Your task to perform on an android device: visit the assistant section in the google photos Image 0: 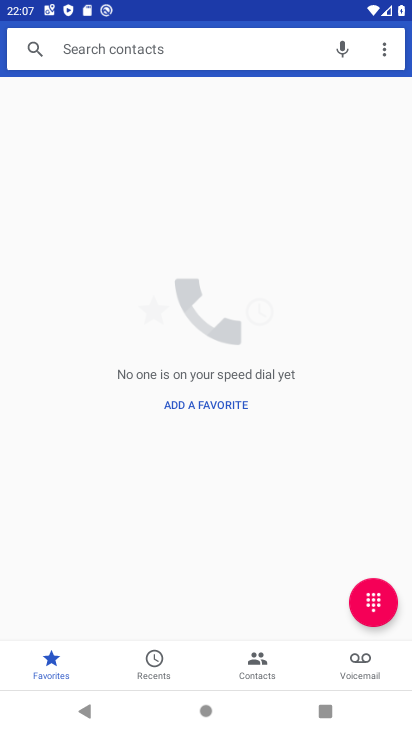
Step 0: press home button
Your task to perform on an android device: visit the assistant section in the google photos Image 1: 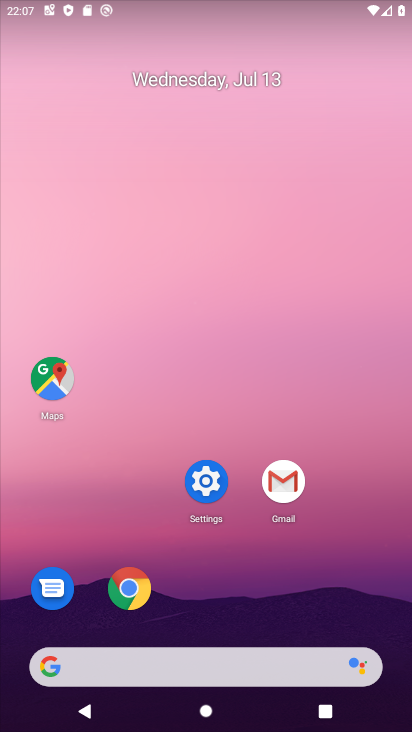
Step 1: drag from (388, 662) to (384, 192)
Your task to perform on an android device: visit the assistant section in the google photos Image 2: 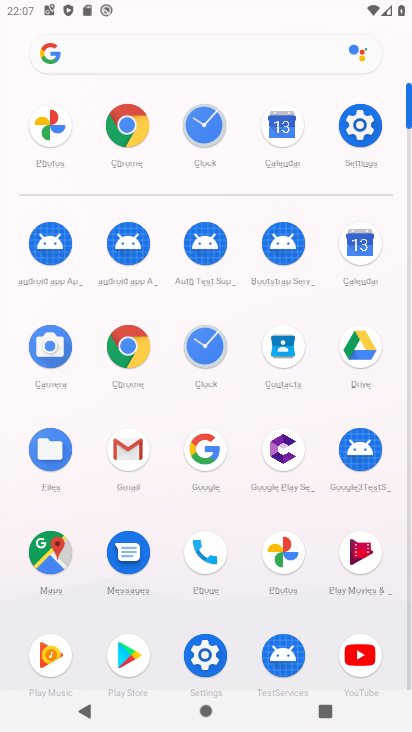
Step 2: click (214, 446)
Your task to perform on an android device: visit the assistant section in the google photos Image 3: 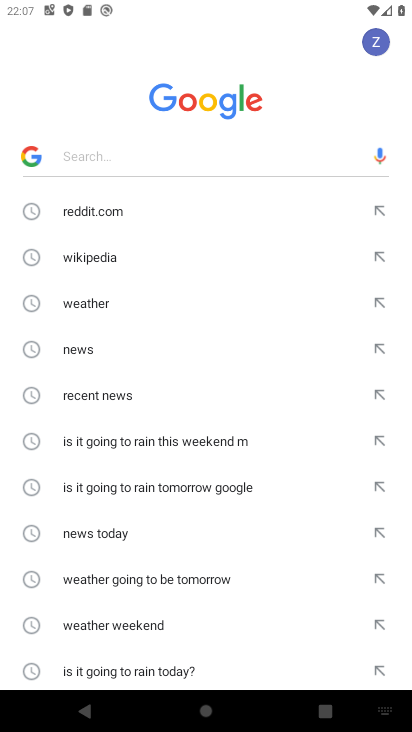
Step 3: press back button
Your task to perform on an android device: visit the assistant section in the google photos Image 4: 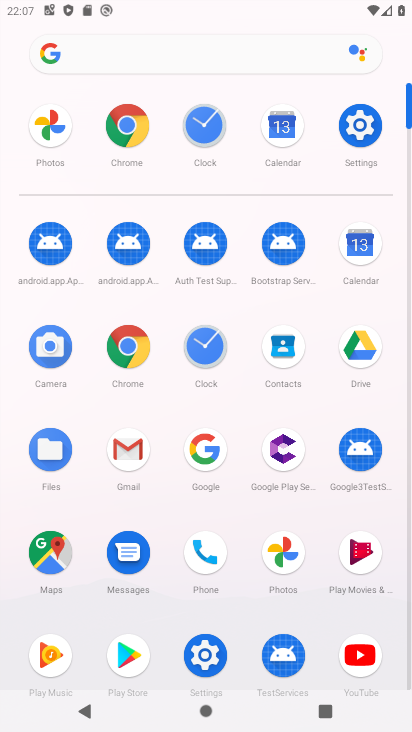
Step 4: click (278, 546)
Your task to perform on an android device: visit the assistant section in the google photos Image 5: 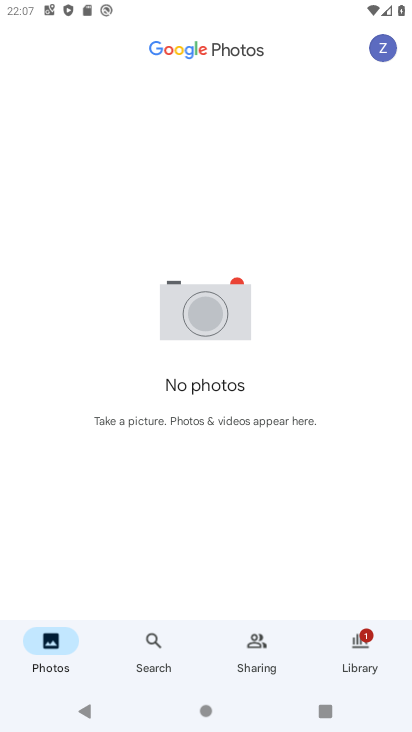
Step 5: task complete